Your task to perform on an android device: Show me the alarms in the clock app Image 0: 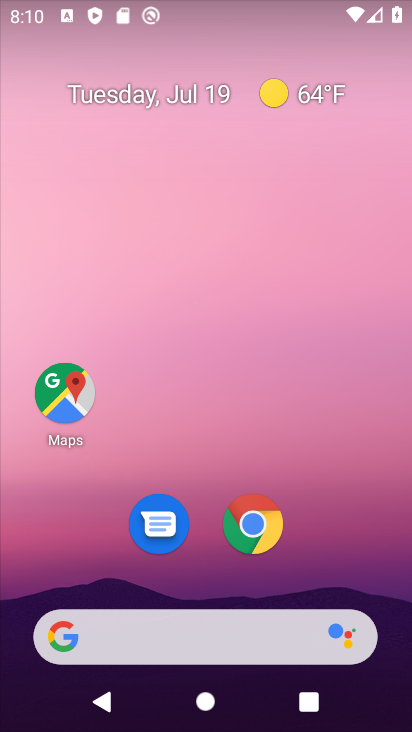
Step 0: drag from (323, 540) to (293, 42)
Your task to perform on an android device: Show me the alarms in the clock app Image 1: 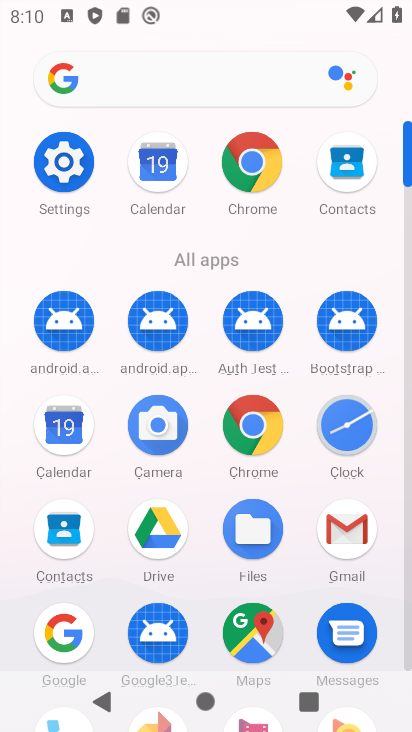
Step 1: click (350, 441)
Your task to perform on an android device: Show me the alarms in the clock app Image 2: 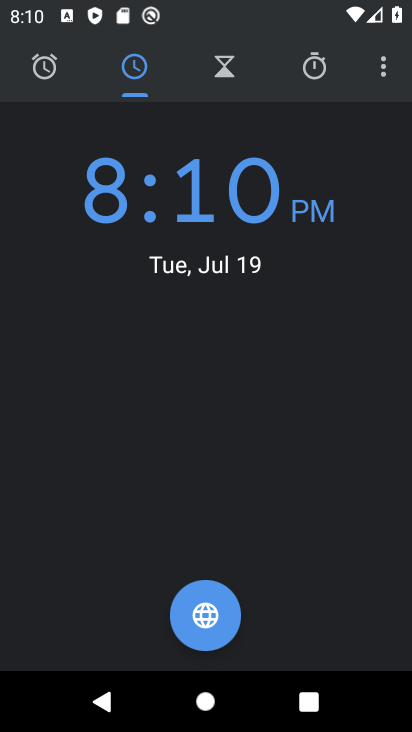
Step 2: click (47, 72)
Your task to perform on an android device: Show me the alarms in the clock app Image 3: 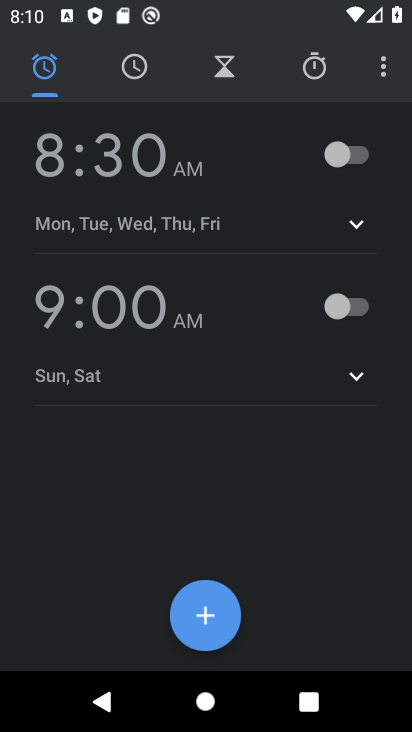
Step 3: task complete